Your task to perform on an android device: Empty the shopping cart on amazon. Search for lg ultragear on amazon, select the first entry, add it to the cart, then select checkout. Image 0: 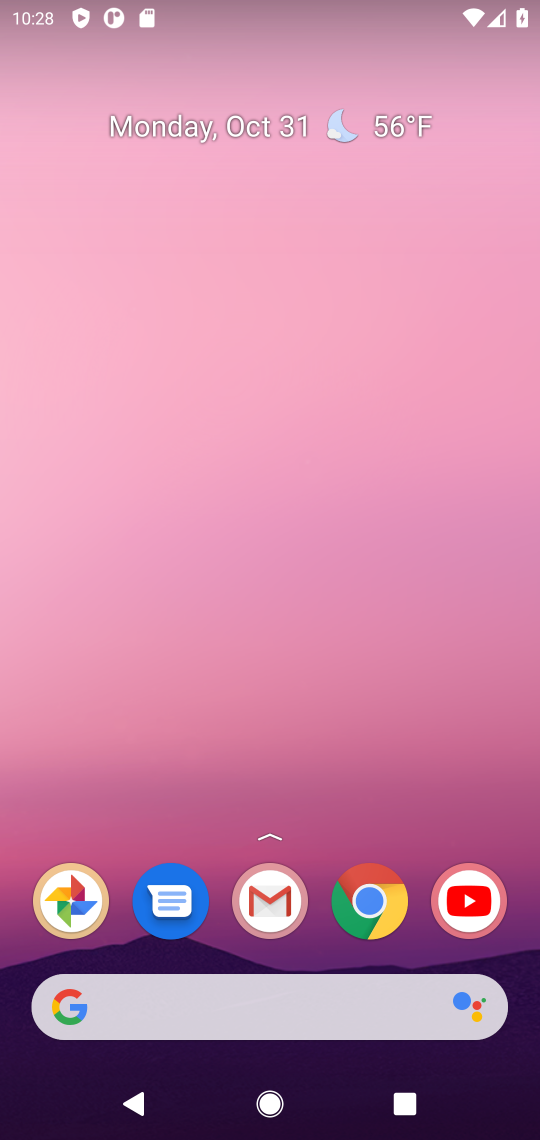
Step 0: drag from (219, 1007) to (207, 314)
Your task to perform on an android device: Empty the shopping cart on amazon. Search for lg ultragear on amazon, select the first entry, add it to the cart, then select checkout. Image 1: 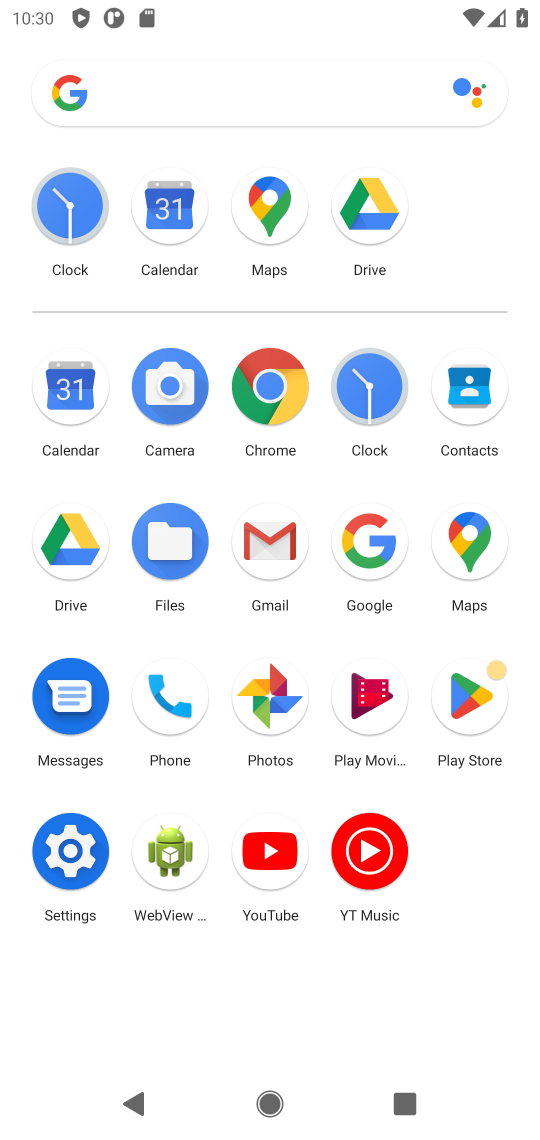
Step 1: click (355, 543)
Your task to perform on an android device: Empty the shopping cart on amazon. Search for lg ultragear on amazon, select the first entry, add it to the cart, then select checkout. Image 2: 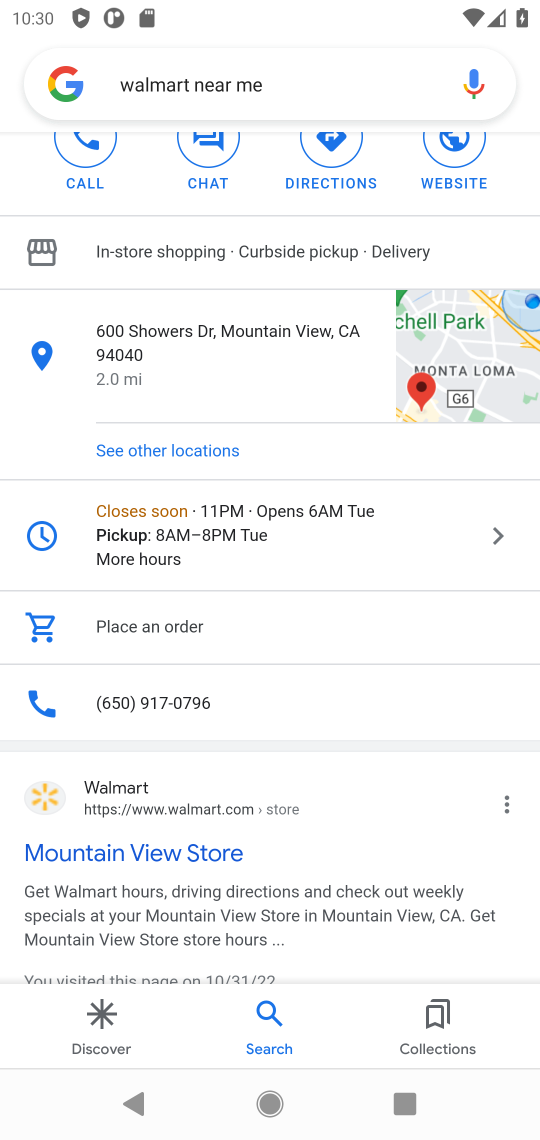
Step 2: click (233, 79)
Your task to perform on an android device: Empty the shopping cart on amazon. Search for lg ultragear on amazon, select the first entry, add it to the cart, then select checkout. Image 3: 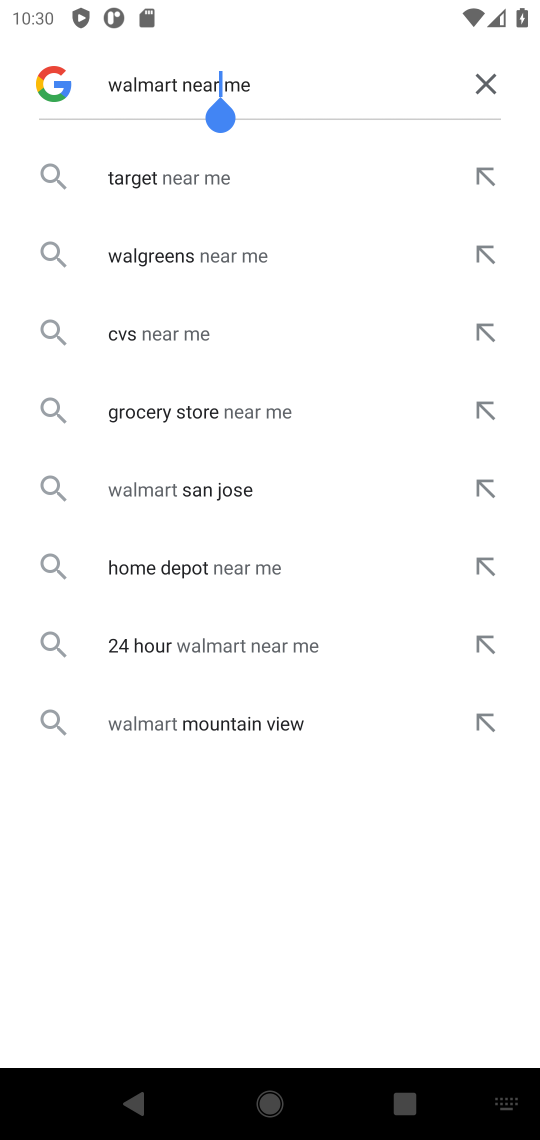
Step 3: click (490, 76)
Your task to perform on an android device: Empty the shopping cart on amazon. Search for lg ultragear on amazon, select the first entry, add it to the cart, then select checkout. Image 4: 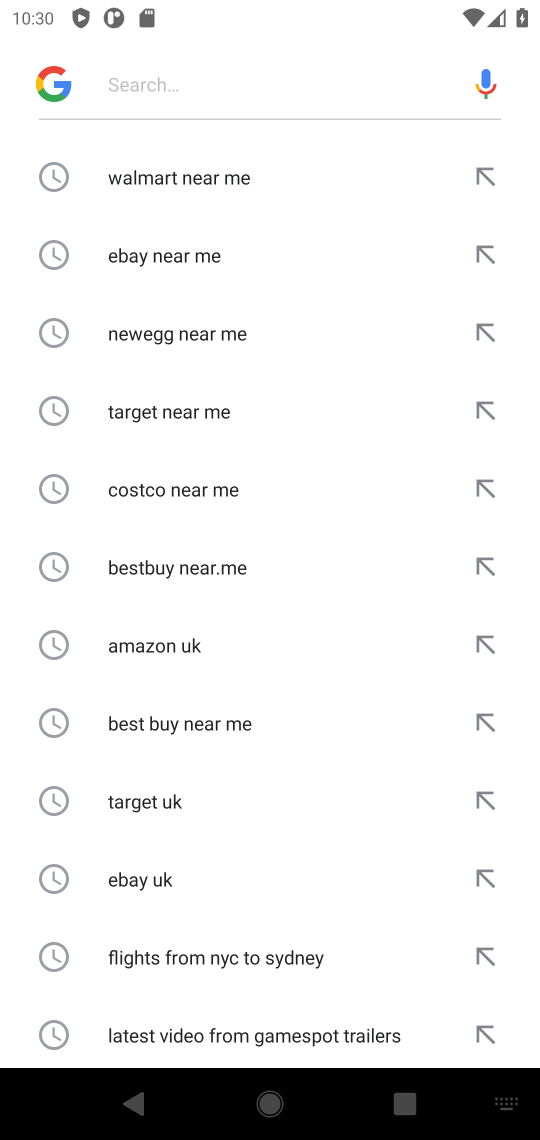
Step 4: click (196, 69)
Your task to perform on an android device: Empty the shopping cart on amazon. Search for lg ultragear on amazon, select the first entry, add it to the cart, then select checkout. Image 5: 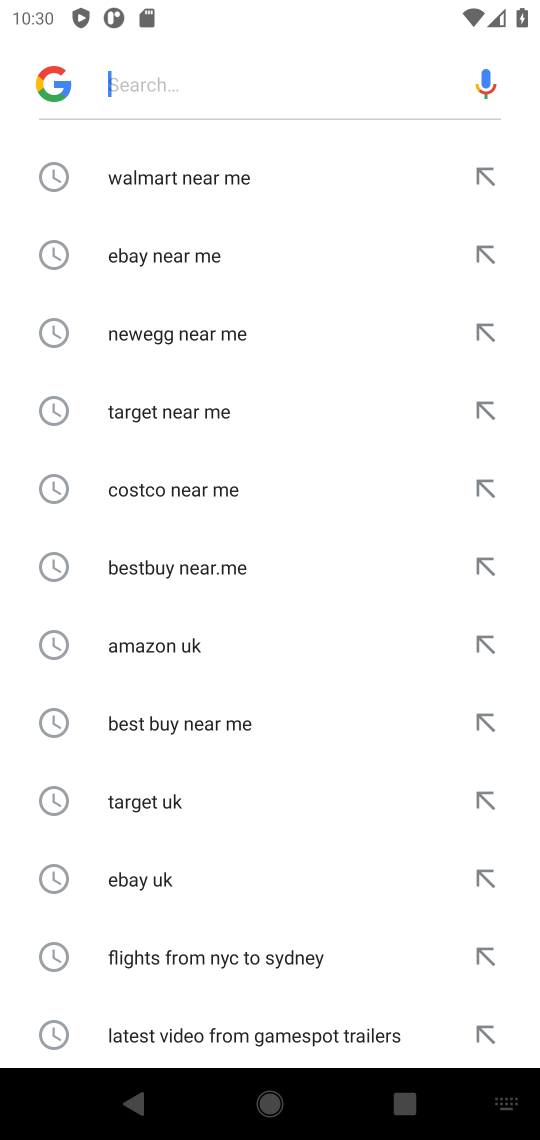
Step 5: type "amazon "
Your task to perform on an android device: Empty the shopping cart on amazon. Search for lg ultragear on amazon, select the first entry, add it to the cart, then select checkout. Image 6: 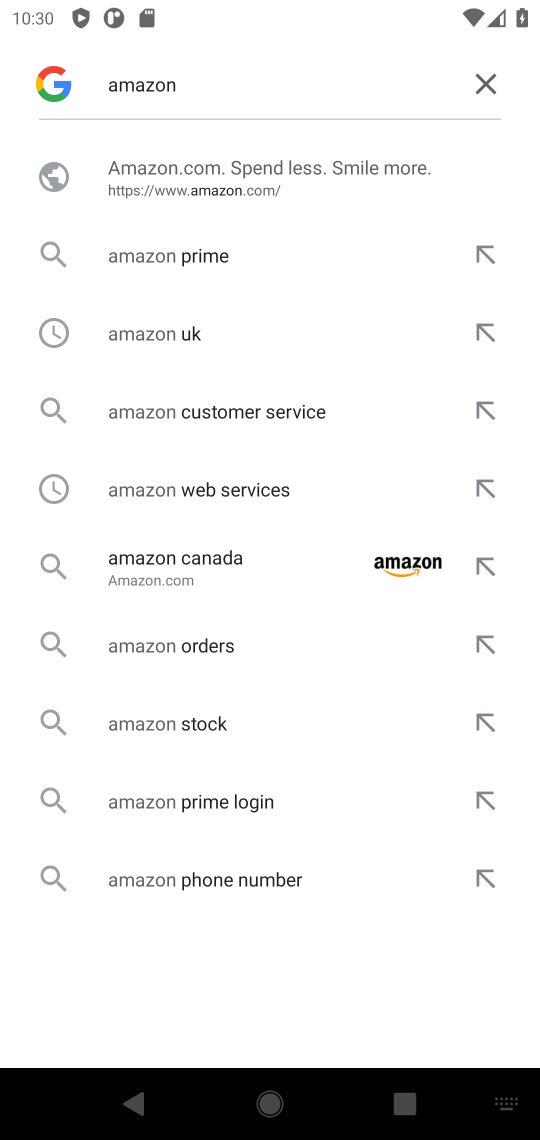
Step 6: click (186, 323)
Your task to perform on an android device: Empty the shopping cart on amazon. Search for lg ultragear on amazon, select the first entry, add it to the cart, then select checkout. Image 7: 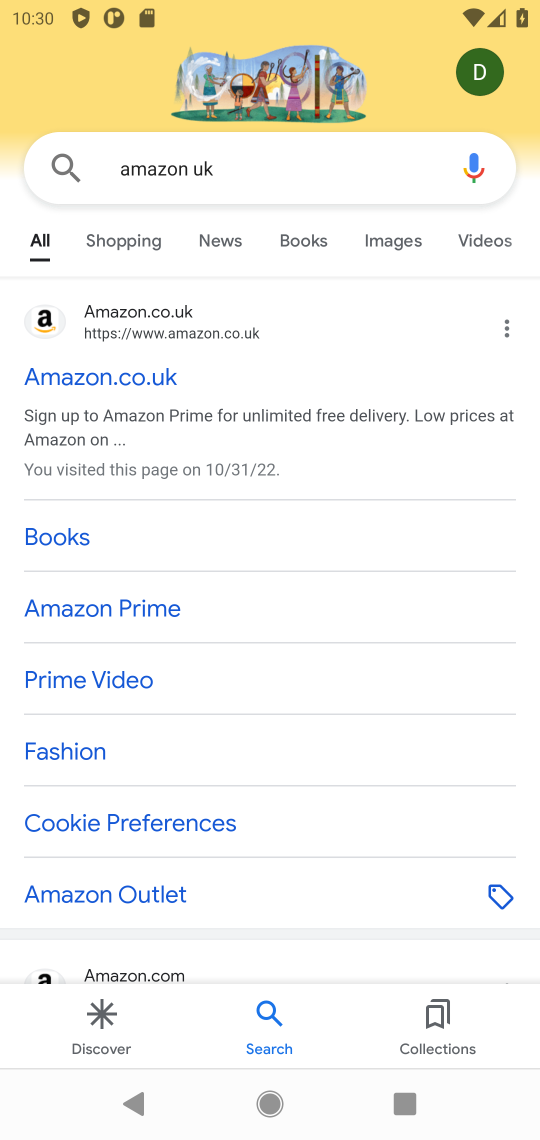
Step 7: click (118, 371)
Your task to perform on an android device: Empty the shopping cart on amazon. Search for lg ultragear on amazon, select the first entry, add it to the cart, then select checkout. Image 8: 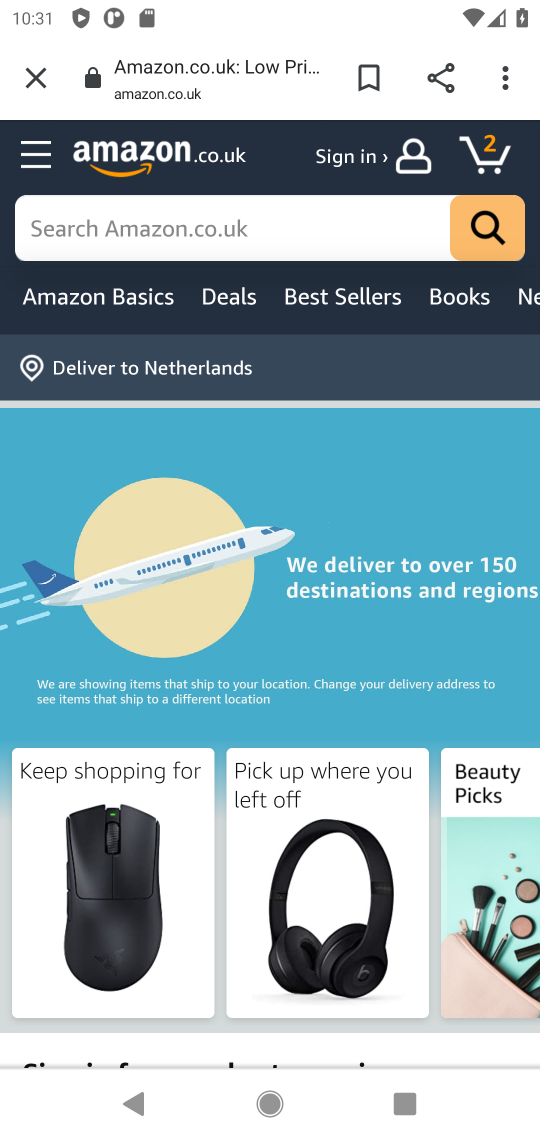
Step 8: click (254, 222)
Your task to perform on an android device: Empty the shopping cart on amazon. Search for lg ultragear on amazon, select the first entry, add it to the cart, then select checkout. Image 9: 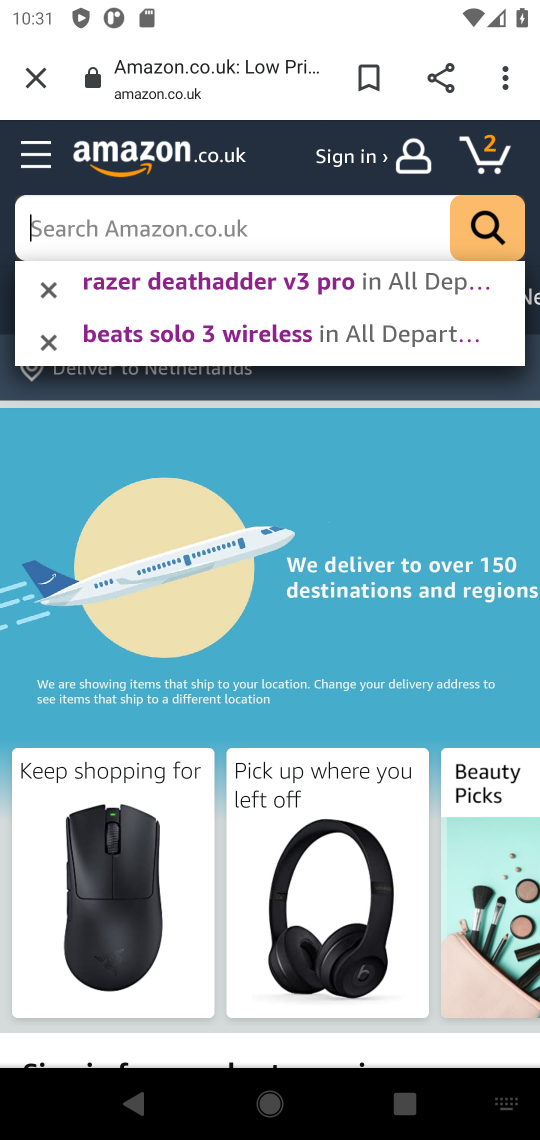
Step 9: type "lg ultragear  "
Your task to perform on an android device: Empty the shopping cart on amazon. Search for lg ultragear on amazon, select the first entry, add it to the cart, then select checkout. Image 10: 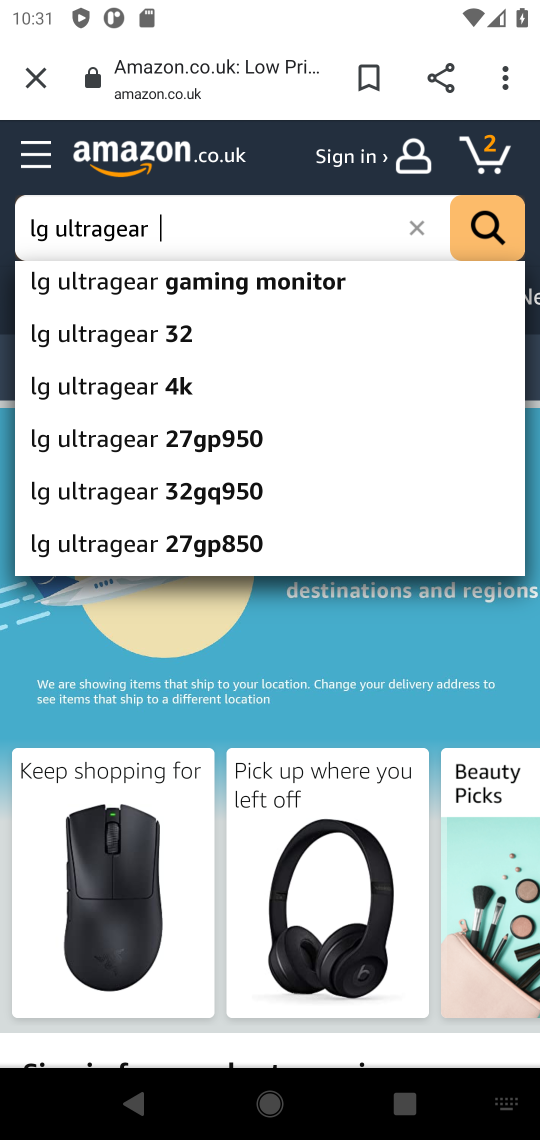
Step 10: click (130, 325)
Your task to perform on an android device: Empty the shopping cart on amazon. Search for lg ultragear on amazon, select the first entry, add it to the cart, then select checkout. Image 11: 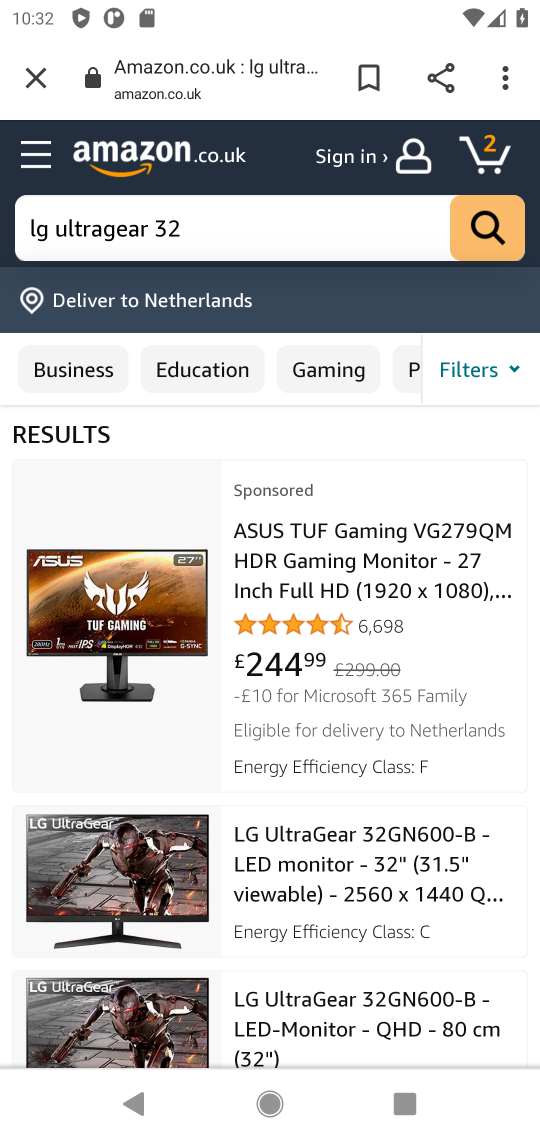
Step 11: click (356, 860)
Your task to perform on an android device: Empty the shopping cart on amazon. Search for lg ultragear on amazon, select the first entry, add it to the cart, then select checkout. Image 12: 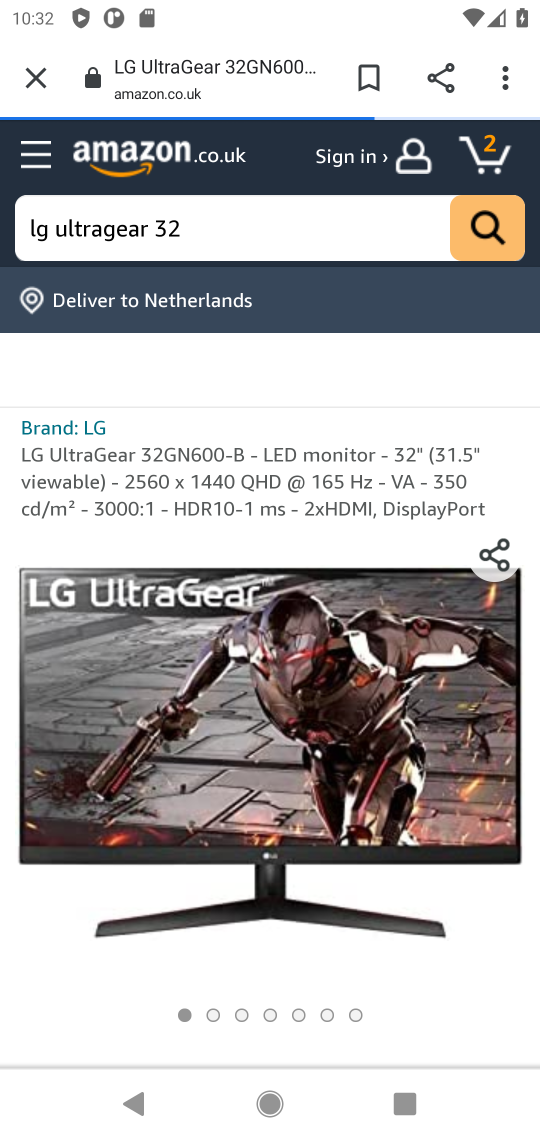
Step 12: drag from (396, 657) to (356, 224)
Your task to perform on an android device: Empty the shopping cart on amazon. Search for lg ultragear on amazon, select the first entry, add it to the cart, then select checkout. Image 13: 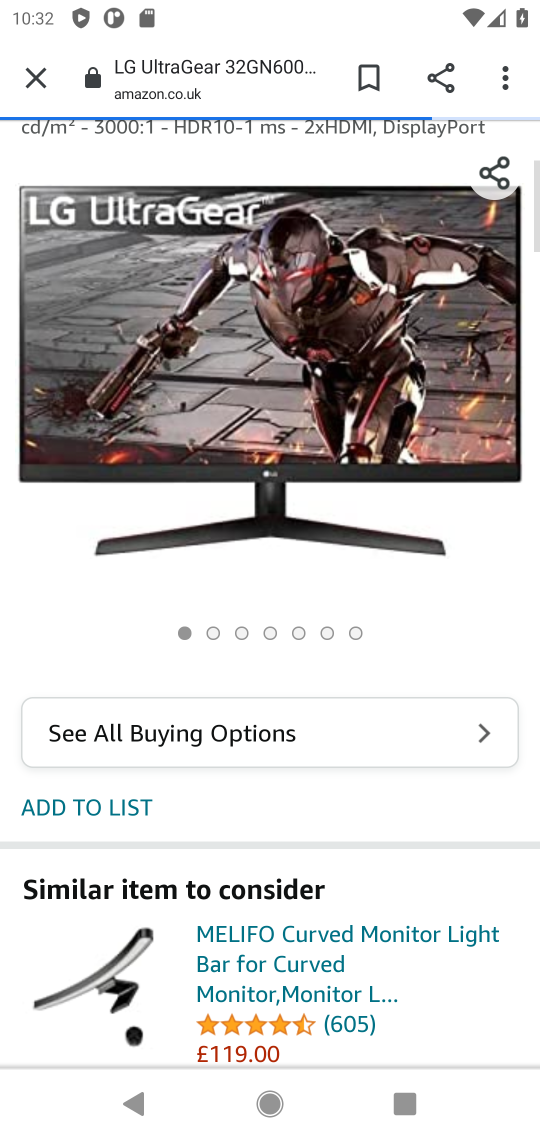
Step 13: drag from (228, 991) to (298, 283)
Your task to perform on an android device: Empty the shopping cart on amazon. Search for lg ultragear on amazon, select the first entry, add it to the cart, then select checkout. Image 14: 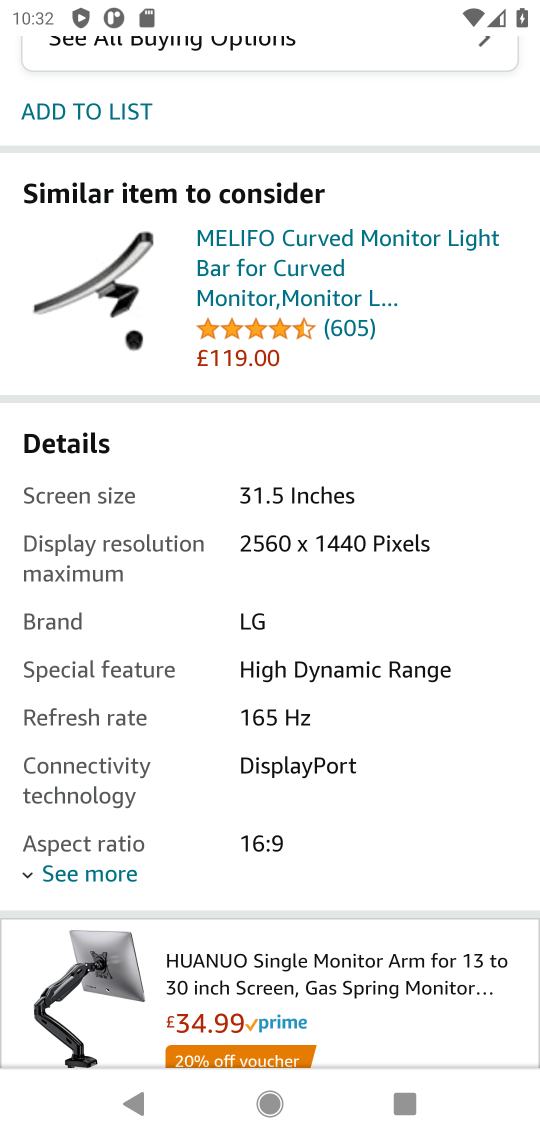
Step 14: drag from (347, 794) to (361, 240)
Your task to perform on an android device: Empty the shopping cart on amazon. Search for lg ultragear on amazon, select the first entry, add it to the cart, then select checkout. Image 15: 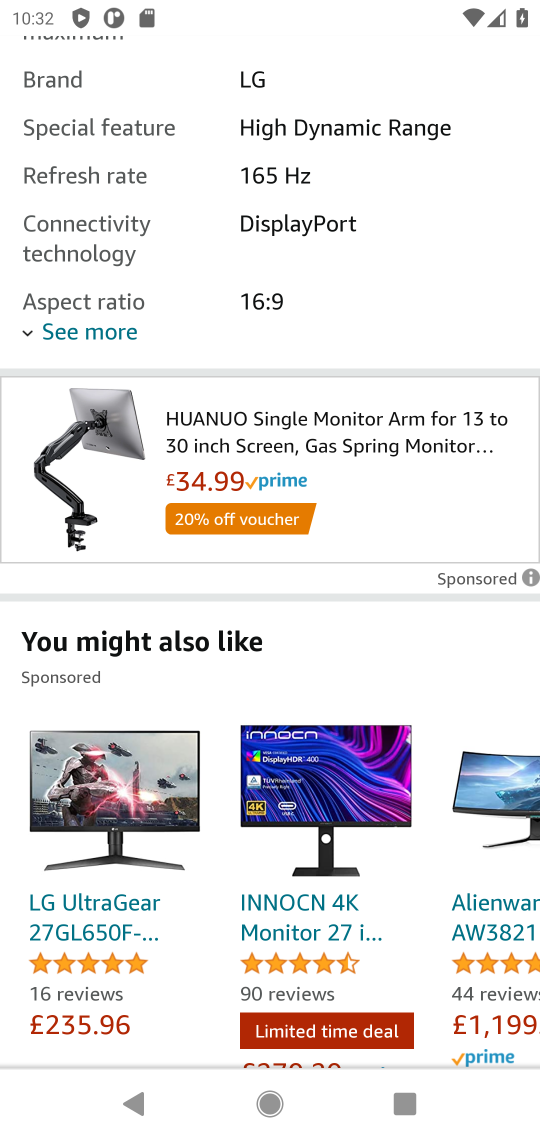
Step 15: drag from (327, 608) to (335, 164)
Your task to perform on an android device: Empty the shopping cart on amazon. Search for lg ultragear on amazon, select the first entry, add it to the cart, then select checkout. Image 16: 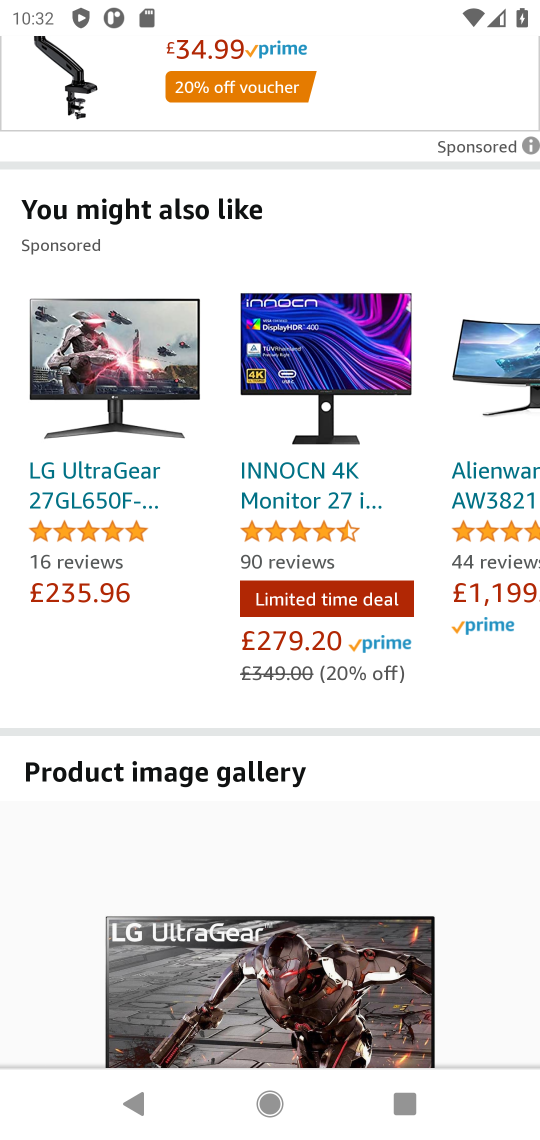
Step 16: drag from (272, 188) to (245, 1100)
Your task to perform on an android device: Empty the shopping cart on amazon. Search for lg ultragear on amazon, select the first entry, add it to the cart, then select checkout. Image 17: 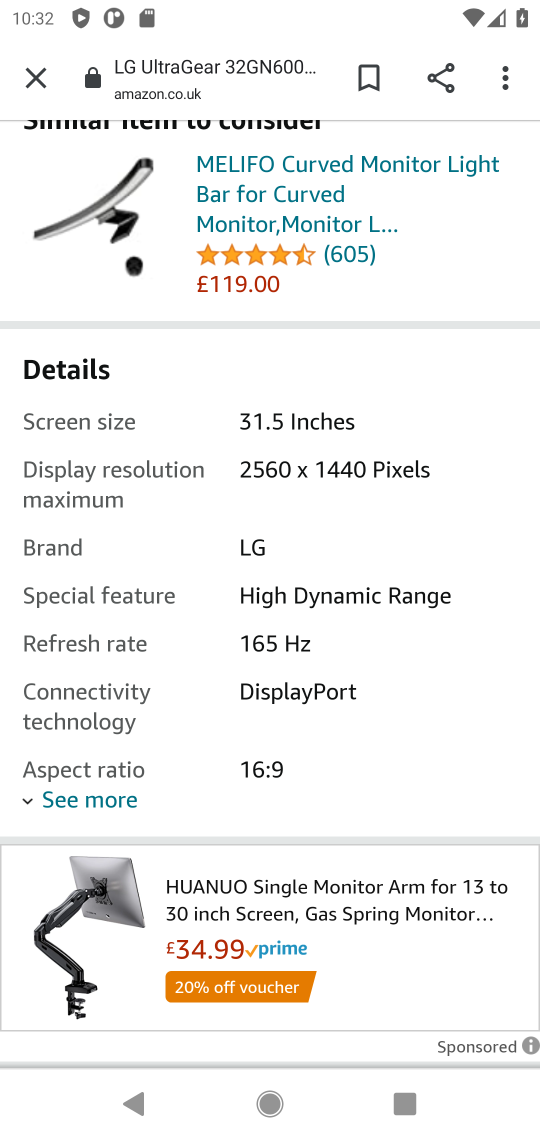
Step 17: drag from (327, 416) to (307, 1010)
Your task to perform on an android device: Empty the shopping cart on amazon. Search for lg ultragear on amazon, select the first entry, add it to the cart, then select checkout. Image 18: 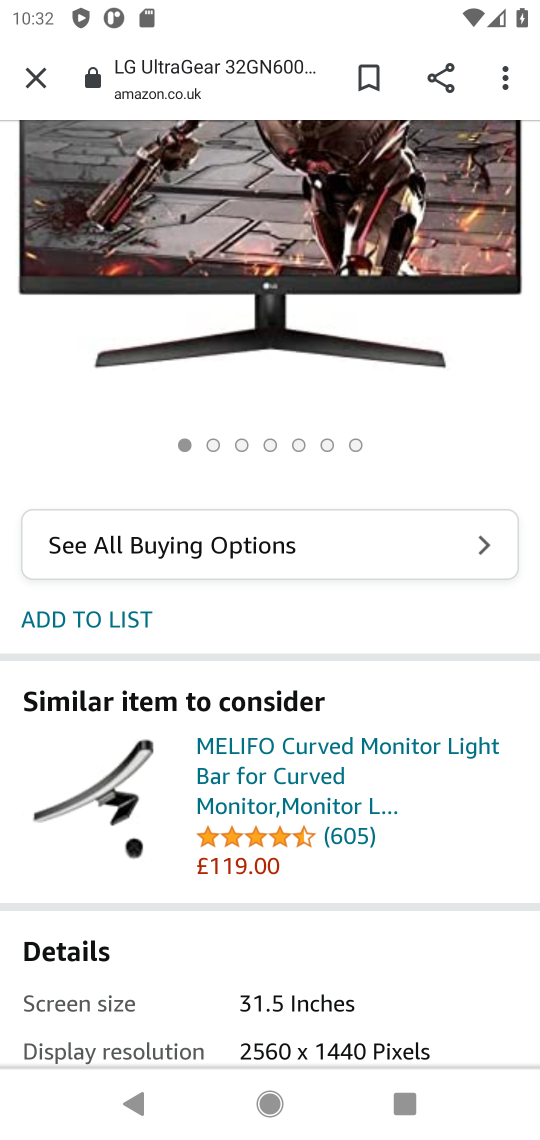
Step 18: drag from (313, 396) to (222, 1040)
Your task to perform on an android device: Empty the shopping cart on amazon. Search for lg ultragear on amazon, select the first entry, add it to the cart, then select checkout. Image 19: 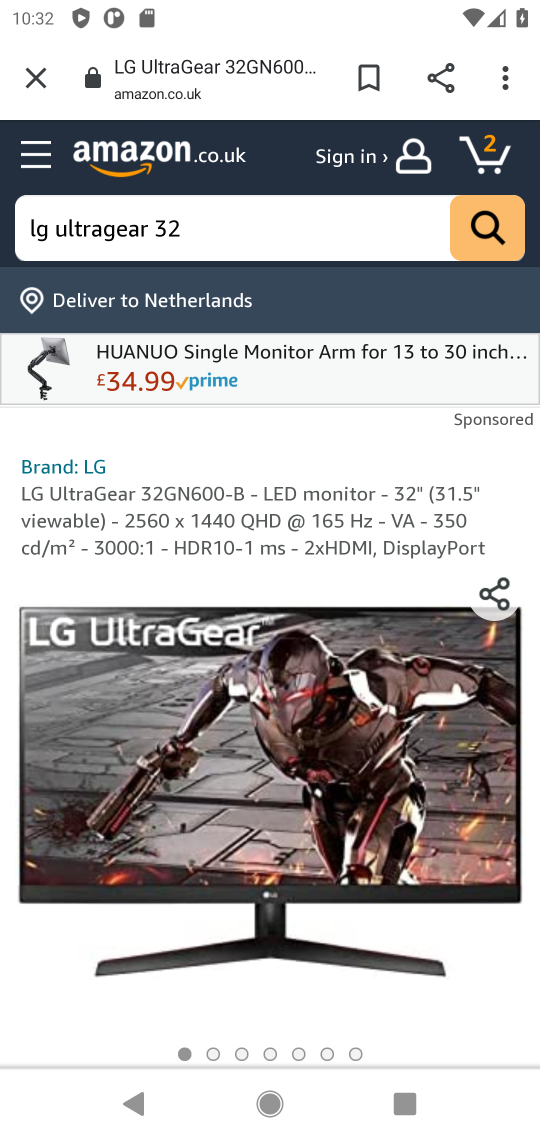
Step 19: drag from (341, 819) to (350, 465)
Your task to perform on an android device: Empty the shopping cart on amazon. Search for lg ultragear on amazon, select the first entry, add it to the cart, then select checkout. Image 20: 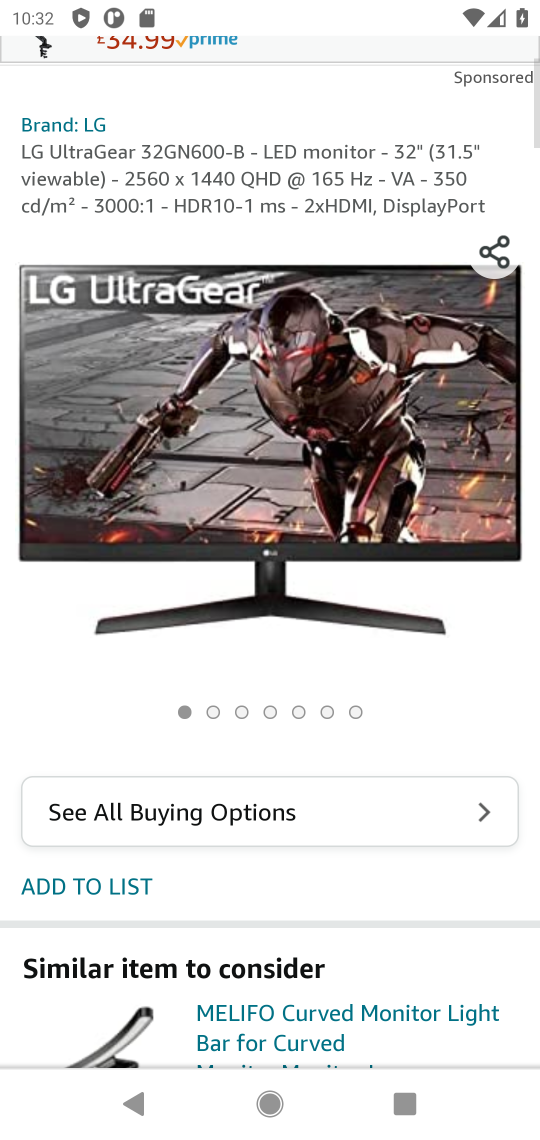
Step 20: press back button
Your task to perform on an android device: Empty the shopping cart on amazon. Search for lg ultragear on amazon, select the first entry, add it to the cart, then select checkout. Image 21: 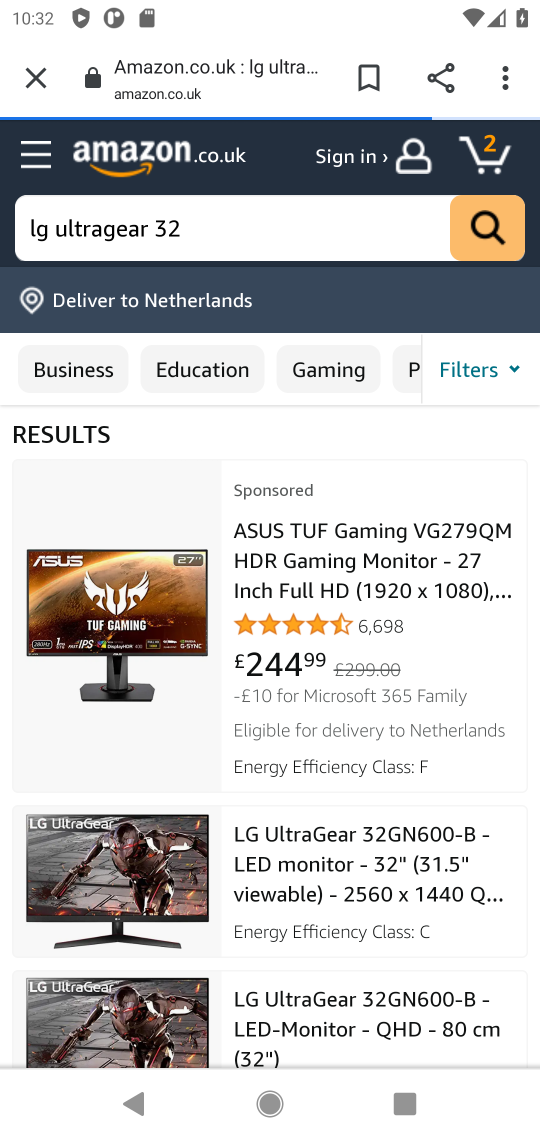
Step 21: click (33, 821)
Your task to perform on an android device: Empty the shopping cart on amazon. Search for lg ultragear on amazon, select the first entry, add it to the cart, then select checkout. Image 22: 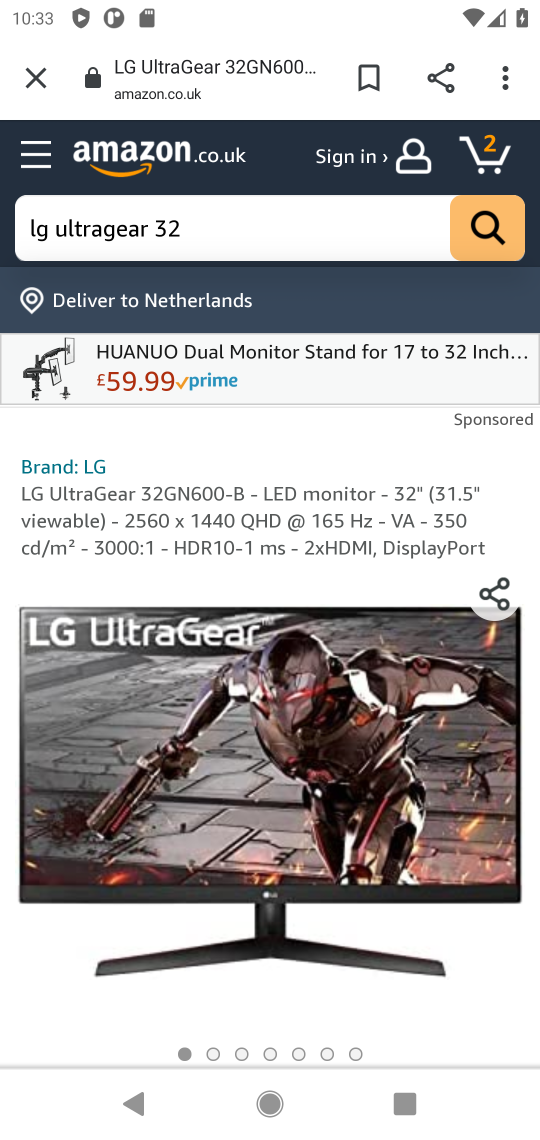
Step 22: drag from (381, 901) to (424, 426)
Your task to perform on an android device: Empty the shopping cart on amazon. Search for lg ultragear on amazon, select the first entry, add it to the cart, then select checkout. Image 23: 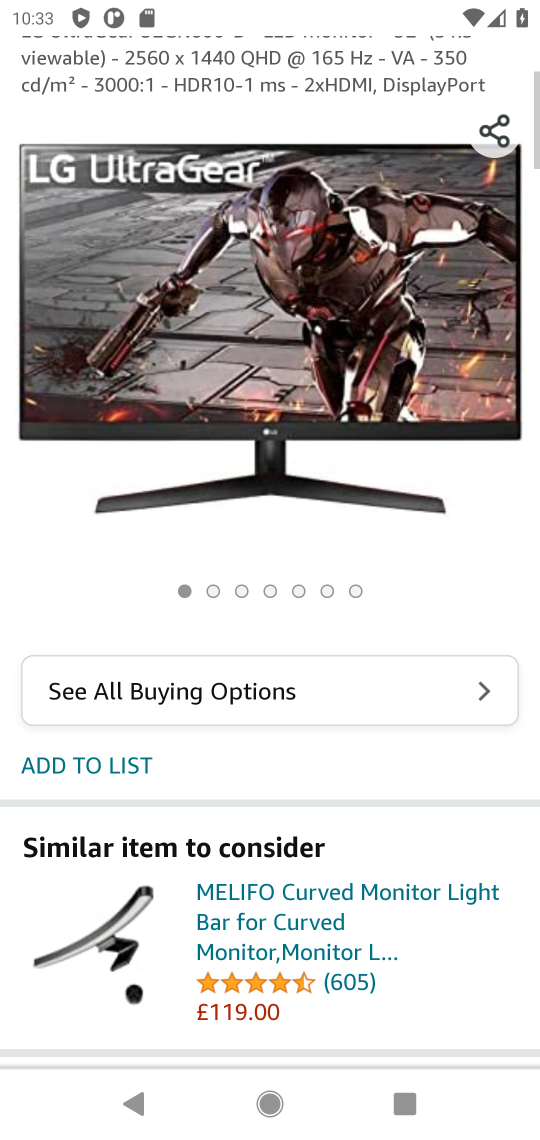
Step 23: drag from (324, 708) to (262, 649)
Your task to perform on an android device: Empty the shopping cart on amazon. Search for lg ultragear on amazon, select the first entry, add it to the cart, then select checkout. Image 24: 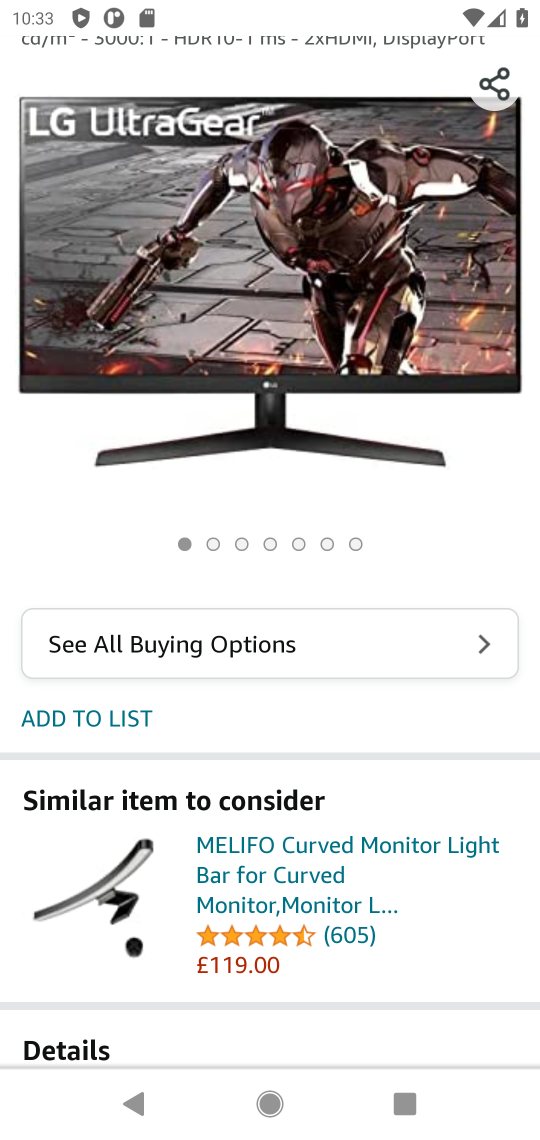
Step 24: click (347, 630)
Your task to perform on an android device: Empty the shopping cart on amazon. Search for lg ultragear on amazon, select the first entry, add it to the cart, then select checkout. Image 25: 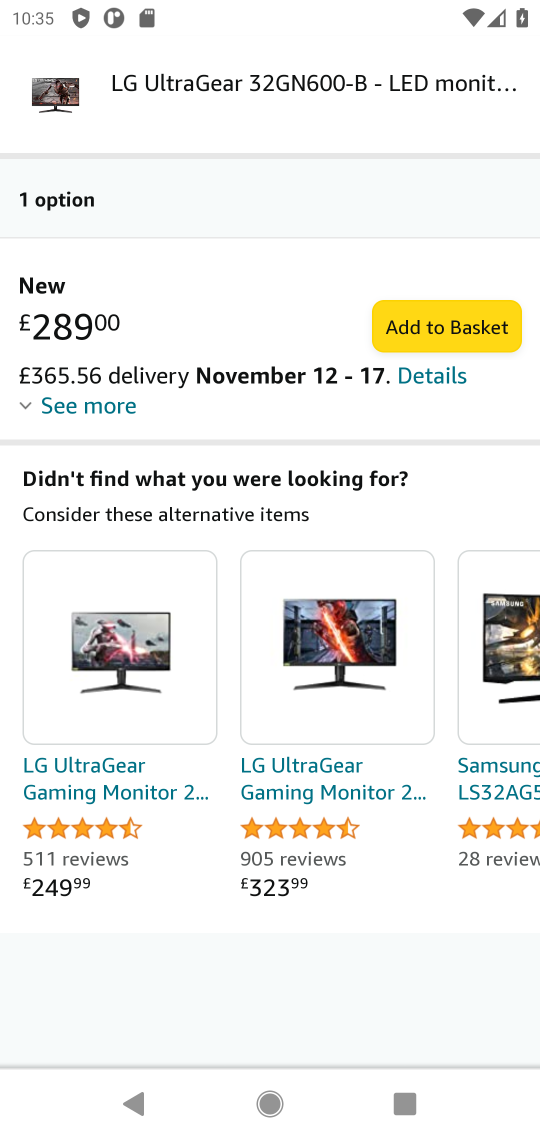
Step 25: drag from (264, 956) to (335, 398)
Your task to perform on an android device: Empty the shopping cart on amazon. Search for lg ultragear on amazon, select the first entry, add it to the cart, then select checkout. Image 26: 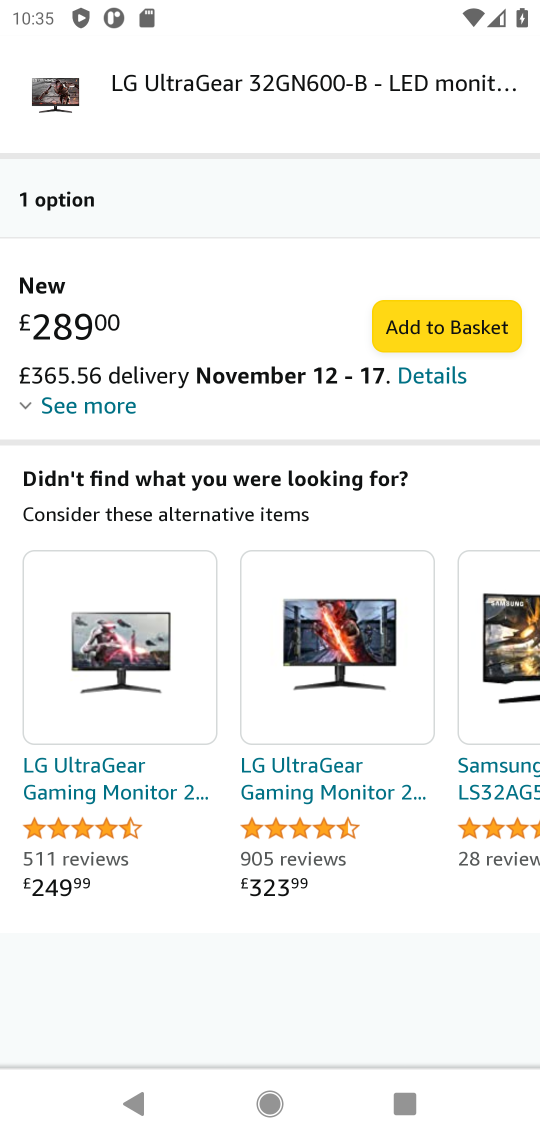
Step 26: click (422, 329)
Your task to perform on an android device: Empty the shopping cart on amazon. Search for lg ultragear on amazon, select the first entry, add it to the cart, then select checkout. Image 27: 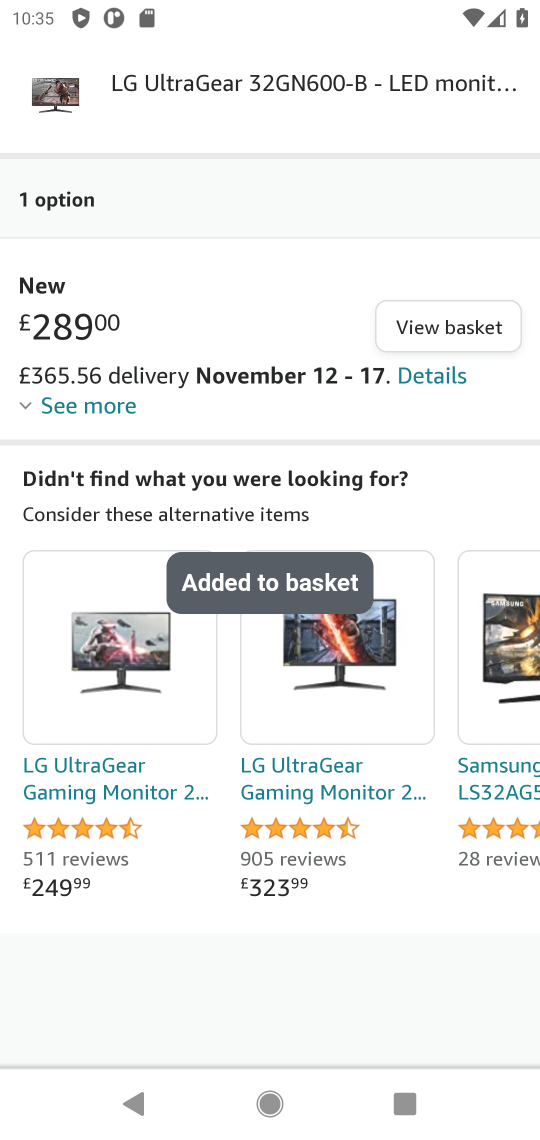
Step 27: task complete